Your task to perform on an android device: clear history in the chrome app Image 0: 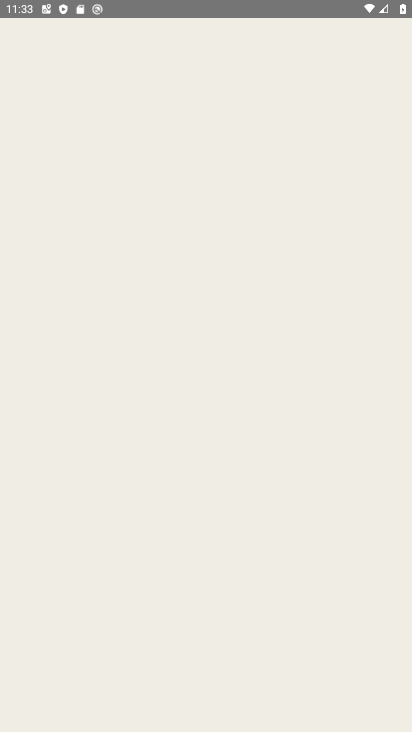
Step 0: drag from (36, 678) to (126, 475)
Your task to perform on an android device: clear history in the chrome app Image 1: 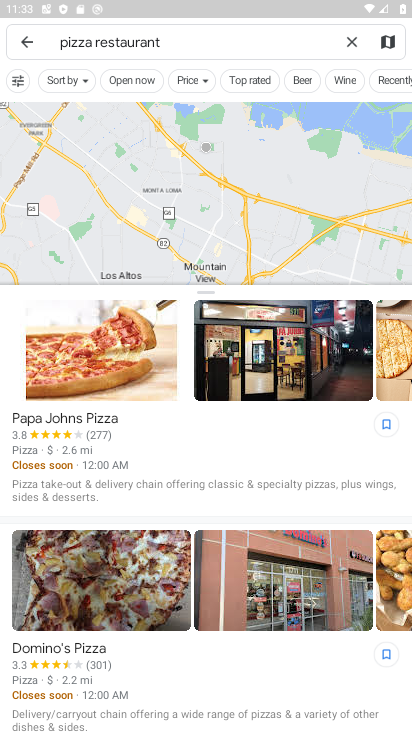
Step 1: press home button
Your task to perform on an android device: clear history in the chrome app Image 2: 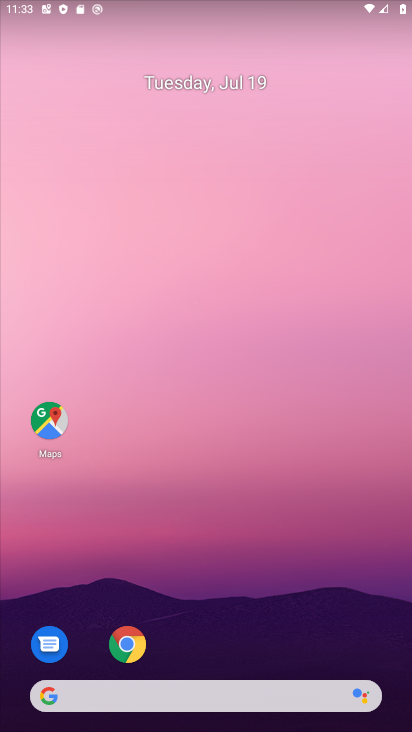
Step 2: click (138, 646)
Your task to perform on an android device: clear history in the chrome app Image 3: 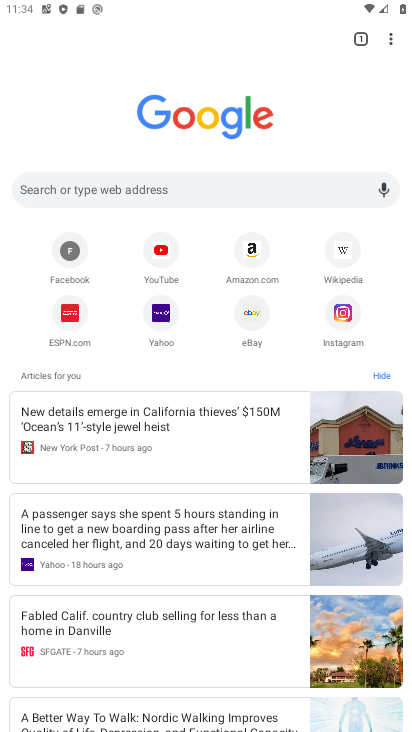
Step 3: click (393, 39)
Your task to perform on an android device: clear history in the chrome app Image 4: 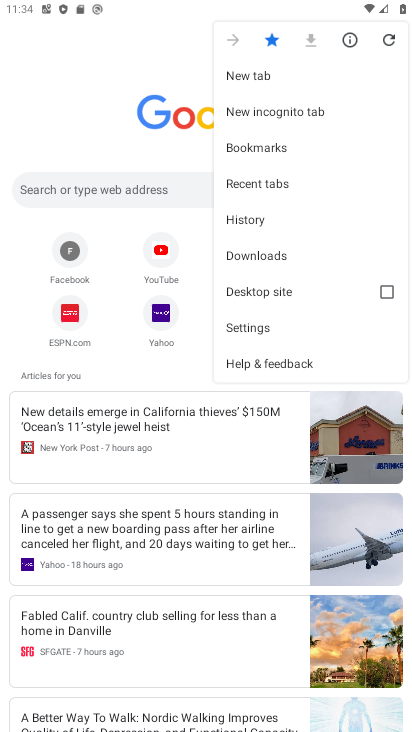
Step 4: click (240, 324)
Your task to perform on an android device: clear history in the chrome app Image 5: 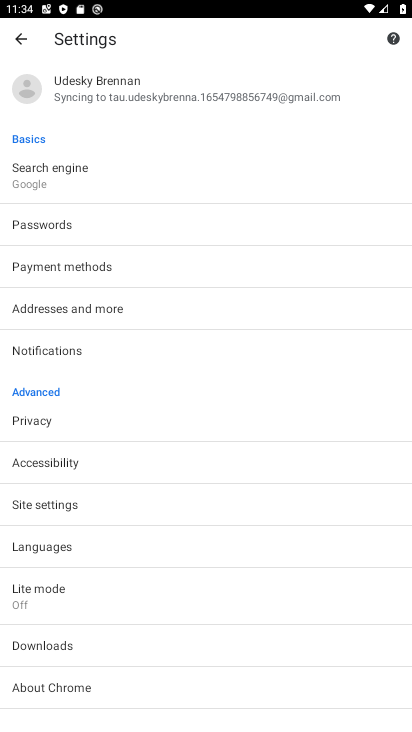
Step 5: click (18, 34)
Your task to perform on an android device: clear history in the chrome app Image 6: 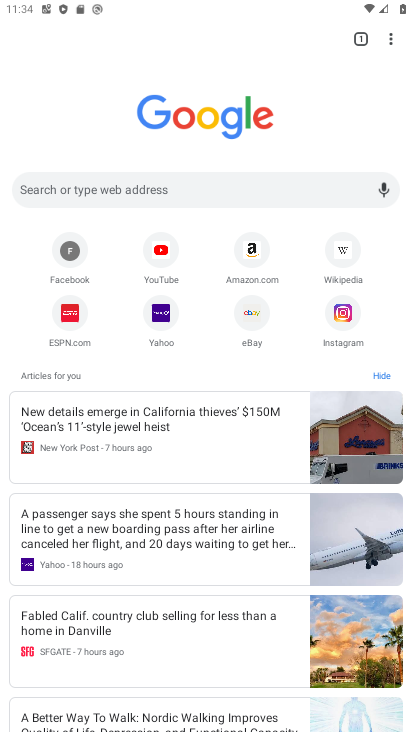
Step 6: click (396, 38)
Your task to perform on an android device: clear history in the chrome app Image 7: 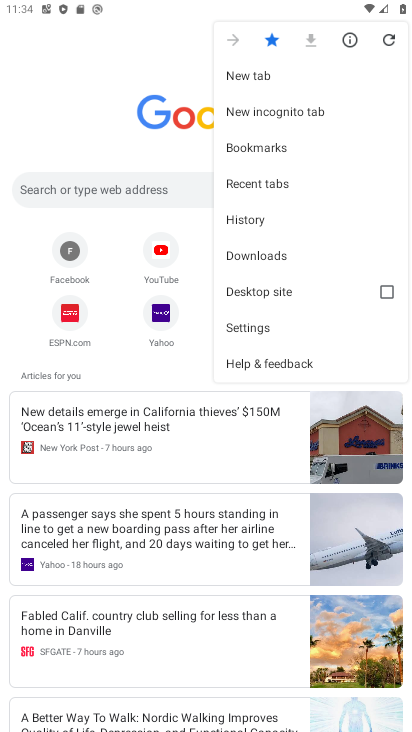
Step 7: click (249, 216)
Your task to perform on an android device: clear history in the chrome app Image 8: 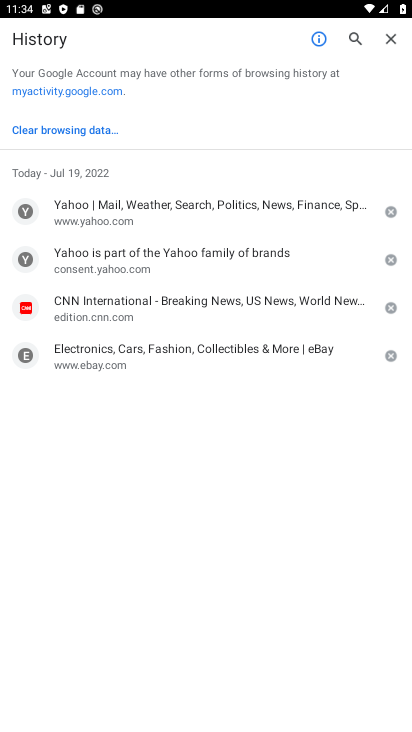
Step 8: click (64, 137)
Your task to perform on an android device: clear history in the chrome app Image 9: 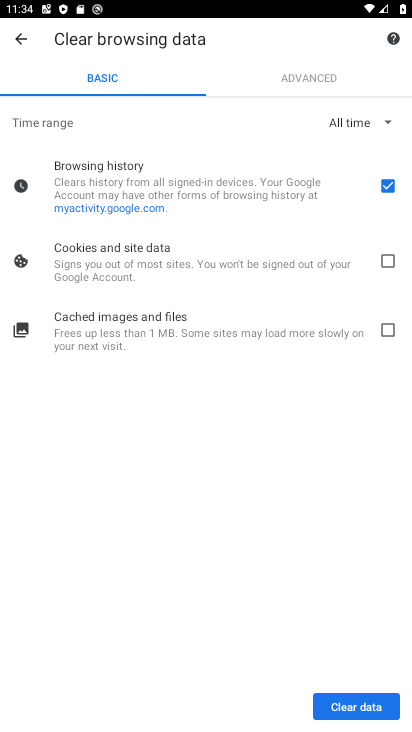
Step 9: click (366, 708)
Your task to perform on an android device: clear history in the chrome app Image 10: 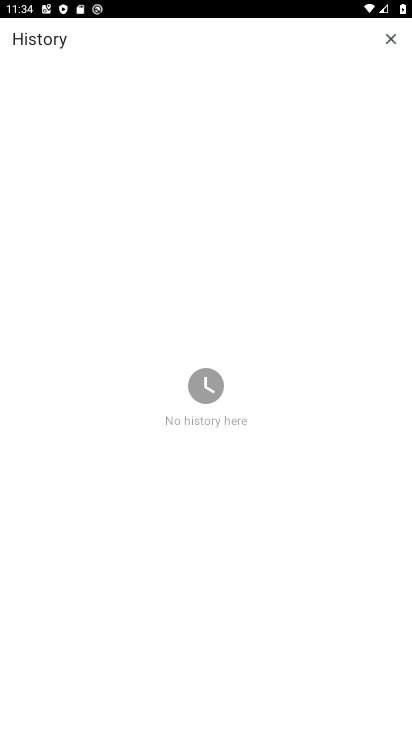
Step 10: task complete